Your task to perform on an android device: Go to accessibility settings Image 0: 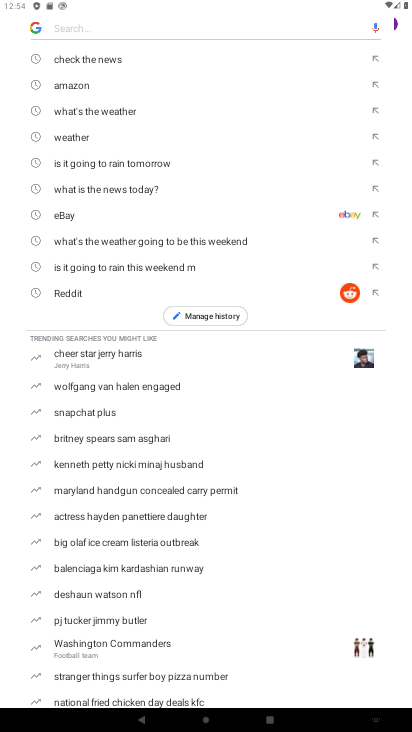
Step 0: press home button
Your task to perform on an android device: Go to accessibility settings Image 1: 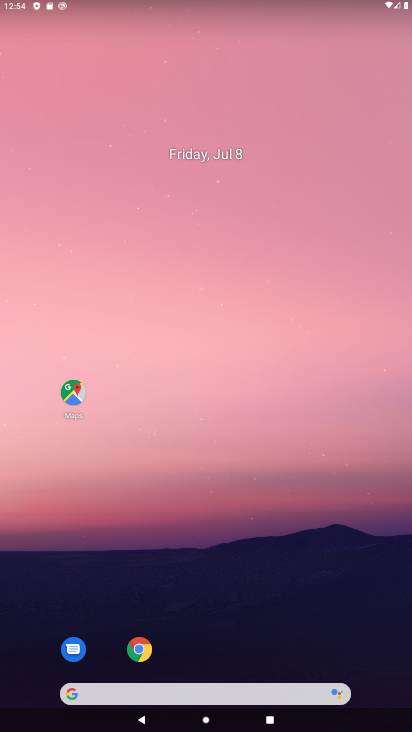
Step 1: drag from (52, 614) to (215, 174)
Your task to perform on an android device: Go to accessibility settings Image 2: 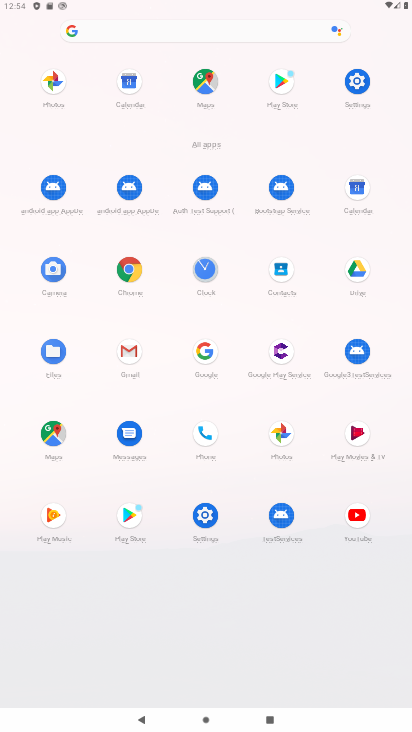
Step 2: click (360, 100)
Your task to perform on an android device: Go to accessibility settings Image 3: 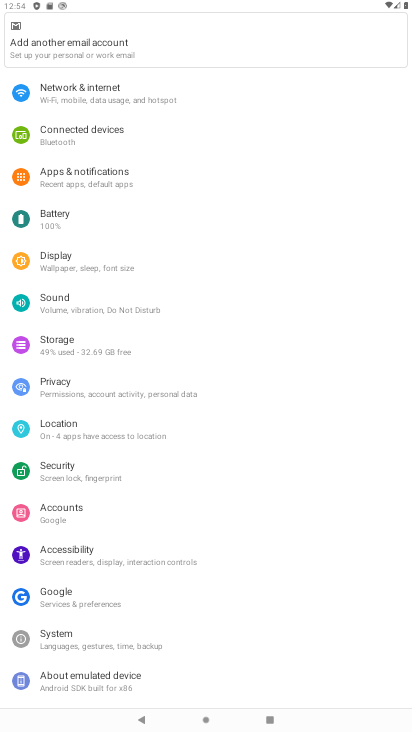
Step 3: click (66, 555)
Your task to perform on an android device: Go to accessibility settings Image 4: 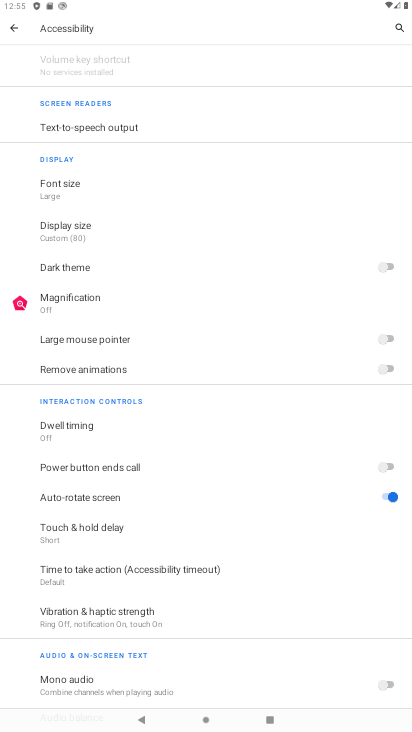
Step 4: task complete